Your task to perform on an android device: toggle data saver in the chrome app Image 0: 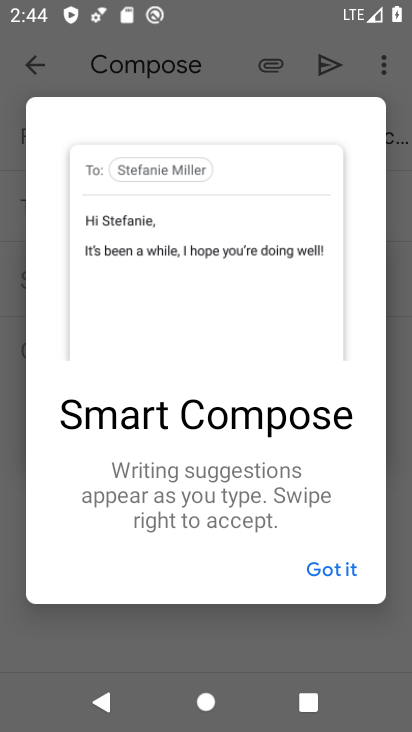
Step 0: press home button
Your task to perform on an android device: toggle data saver in the chrome app Image 1: 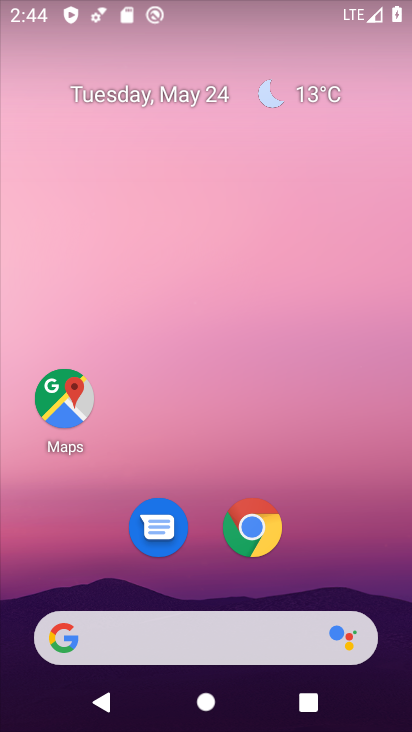
Step 1: click (248, 533)
Your task to perform on an android device: toggle data saver in the chrome app Image 2: 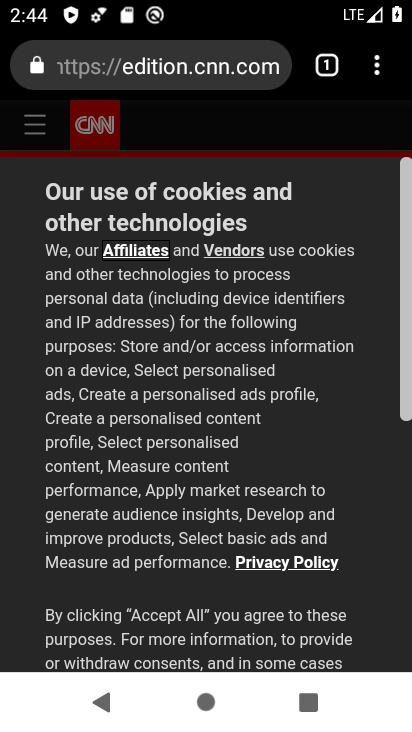
Step 2: click (375, 59)
Your task to perform on an android device: toggle data saver in the chrome app Image 3: 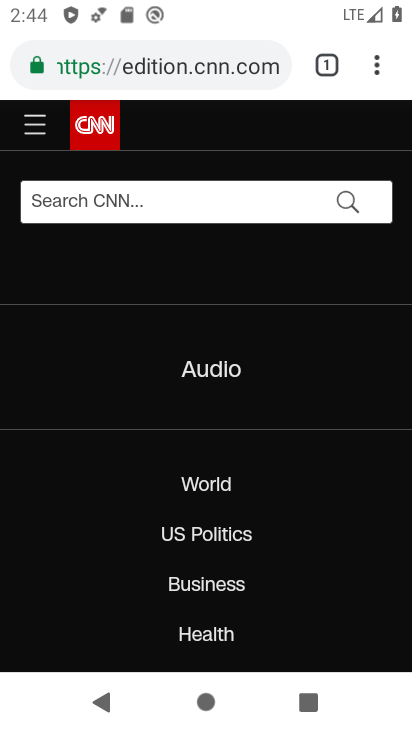
Step 3: click (375, 79)
Your task to perform on an android device: toggle data saver in the chrome app Image 4: 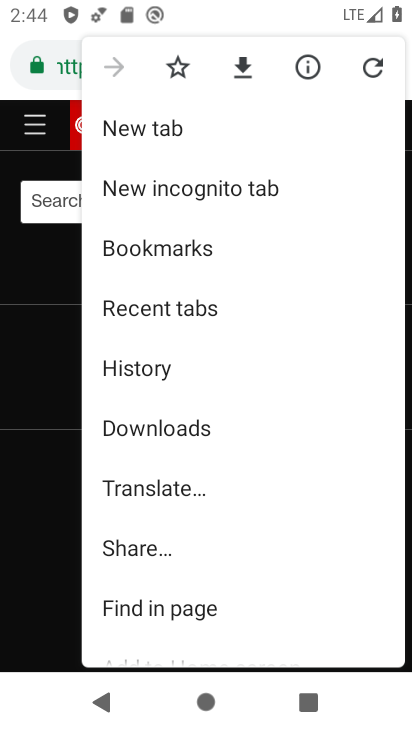
Step 4: drag from (221, 587) to (216, 346)
Your task to perform on an android device: toggle data saver in the chrome app Image 5: 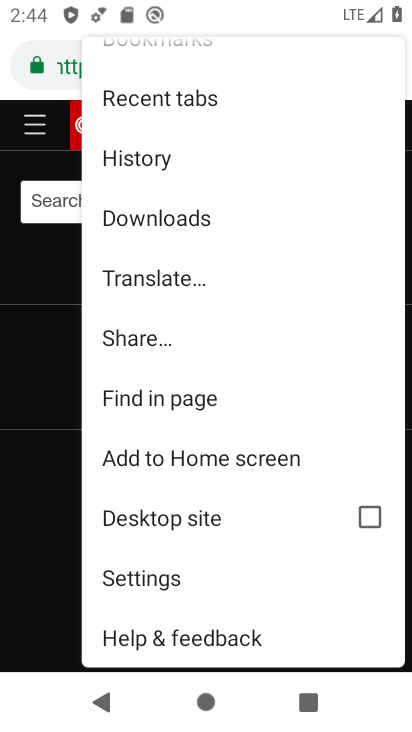
Step 5: click (212, 587)
Your task to perform on an android device: toggle data saver in the chrome app Image 6: 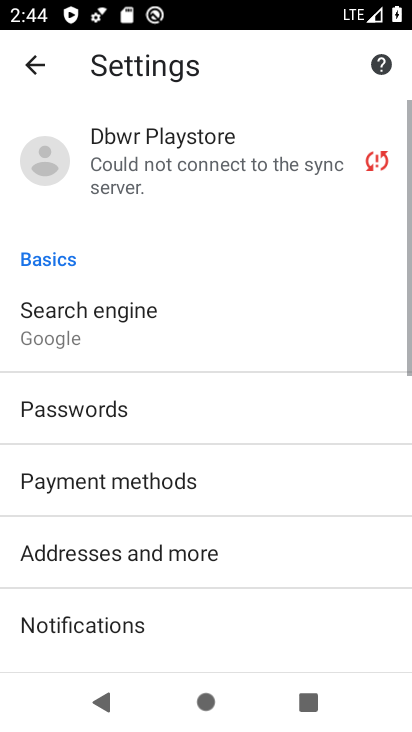
Step 6: drag from (186, 605) to (197, 209)
Your task to perform on an android device: toggle data saver in the chrome app Image 7: 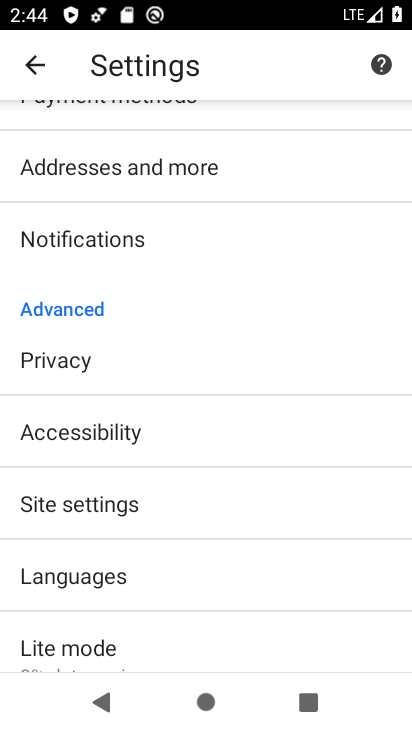
Step 7: click (130, 654)
Your task to perform on an android device: toggle data saver in the chrome app Image 8: 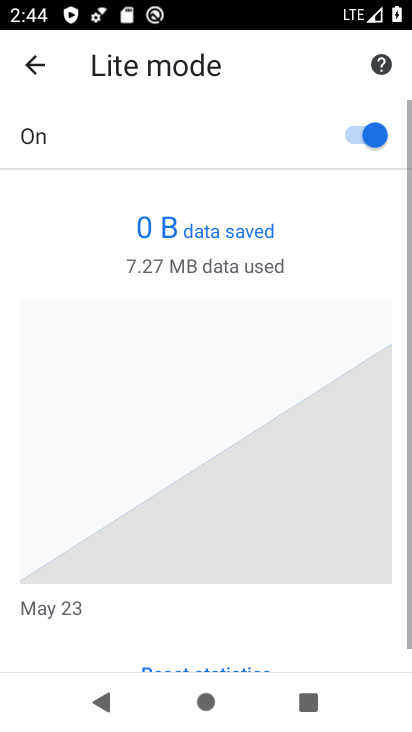
Step 8: click (340, 134)
Your task to perform on an android device: toggle data saver in the chrome app Image 9: 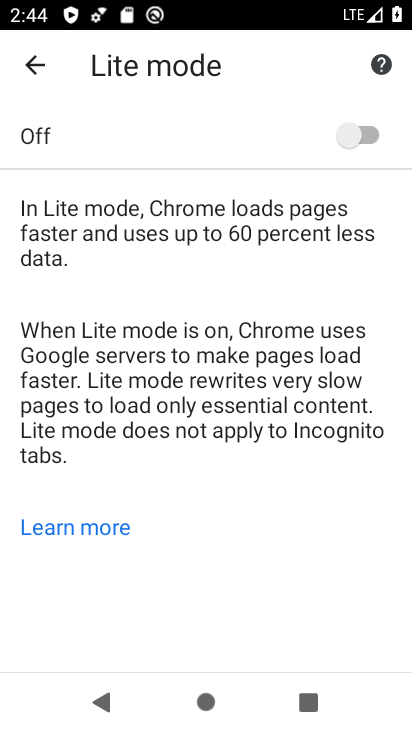
Step 9: task complete